Your task to perform on an android device: Go to notification settings Image 0: 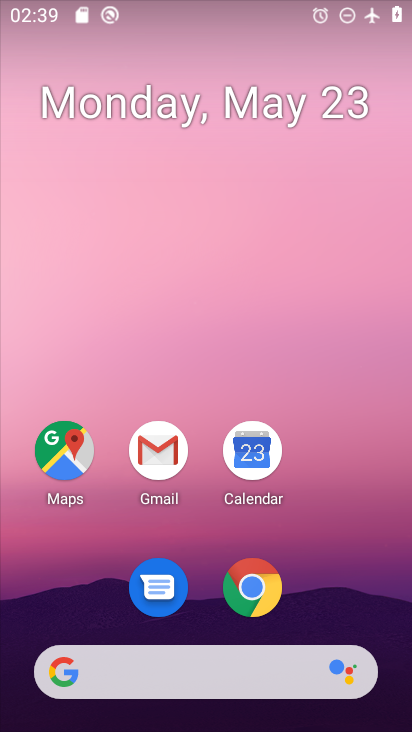
Step 0: drag from (340, 616) to (357, 116)
Your task to perform on an android device: Go to notification settings Image 1: 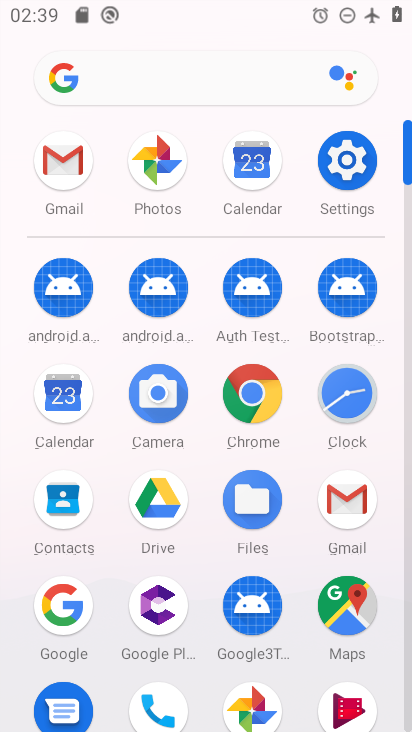
Step 1: drag from (348, 193) to (220, 240)
Your task to perform on an android device: Go to notification settings Image 2: 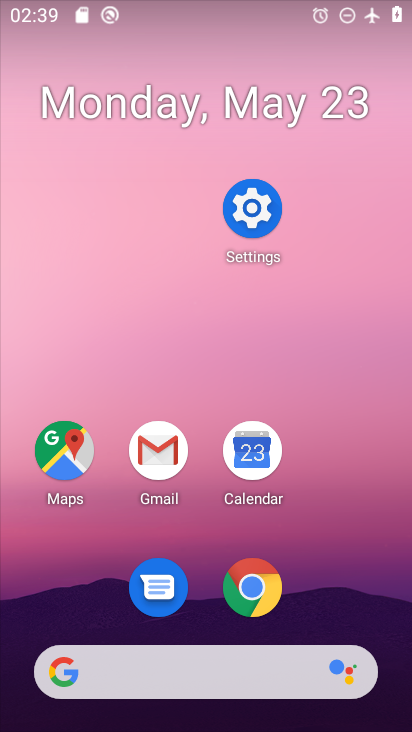
Step 2: click (220, 240)
Your task to perform on an android device: Go to notification settings Image 3: 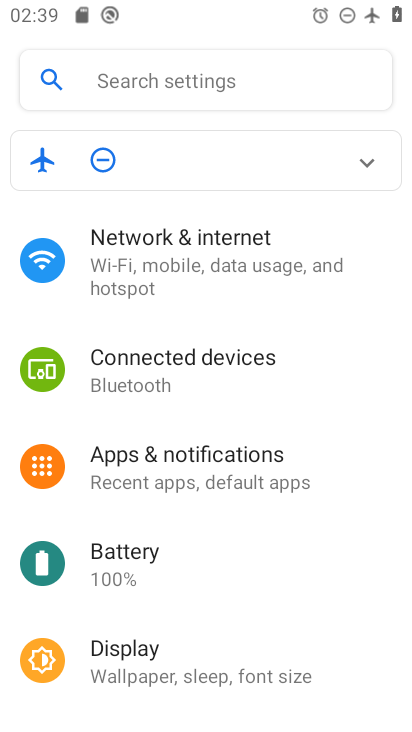
Step 3: drag from (207, 569) to (210, 523)
Your task to perform on an android device: Go to notification settings Image 4: 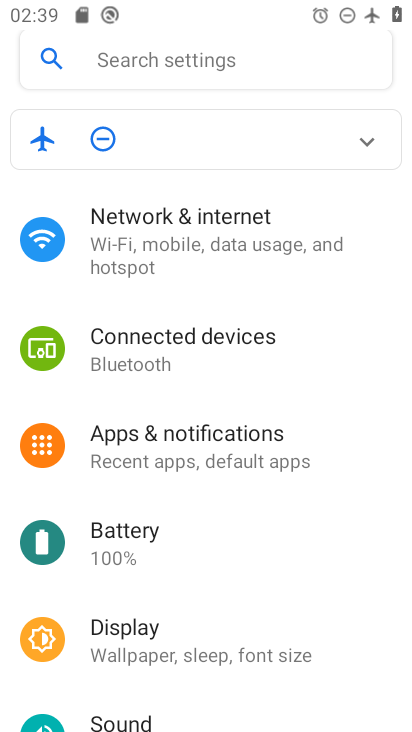
Step 4: click (224, 471)
Your task to perform on an android device: Go to notification settings Image 5: 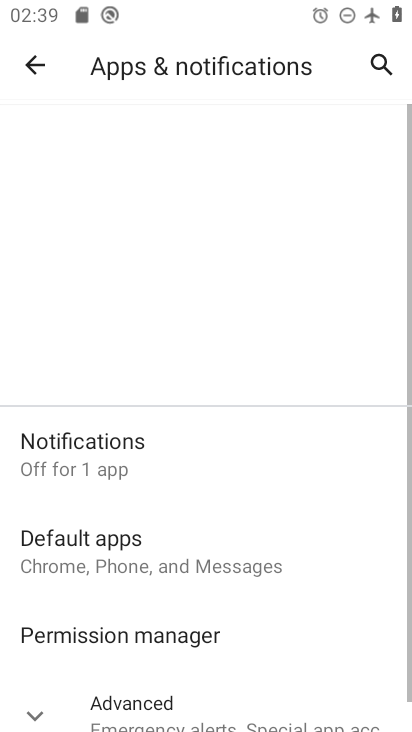
Step 5: task complete